Your task to perform on an android device: check google app version Image 0: 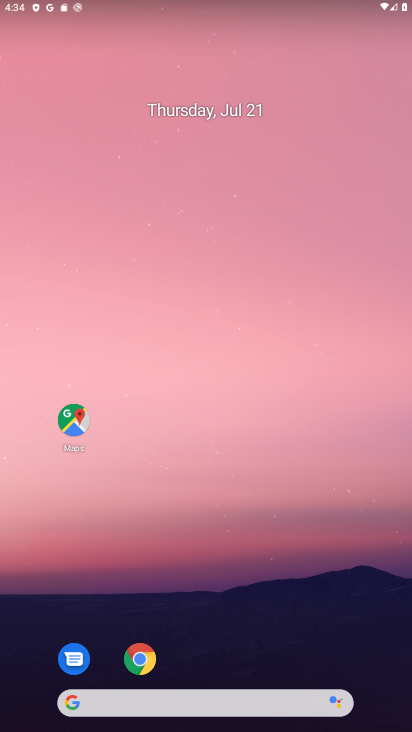
Step 0: drag from (212, 409) to (164, 90)
Your task to perform on an android device: check google app version Image 1: 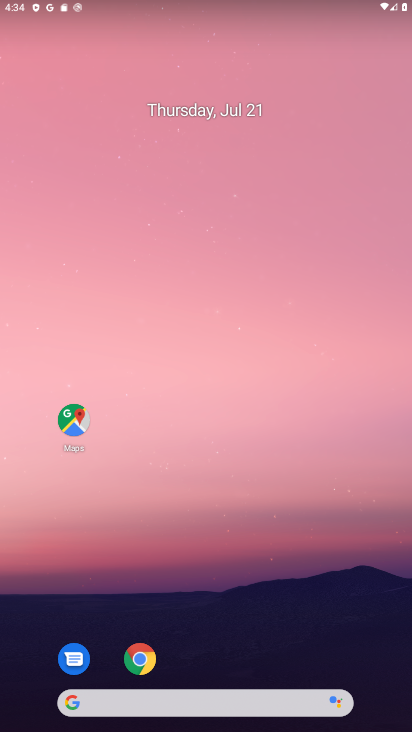
Step 1: click (189, 703)
Your task to perform on an android device: check google app version Image 2: 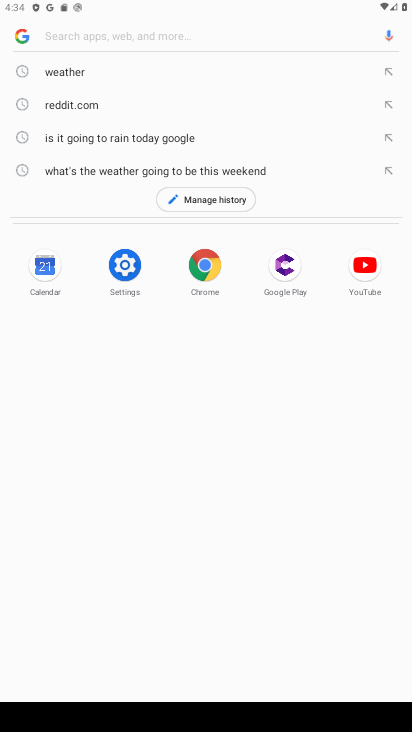
Step 2: click (18, 32)
Your task to perform on an android device: check google app version Image 3: 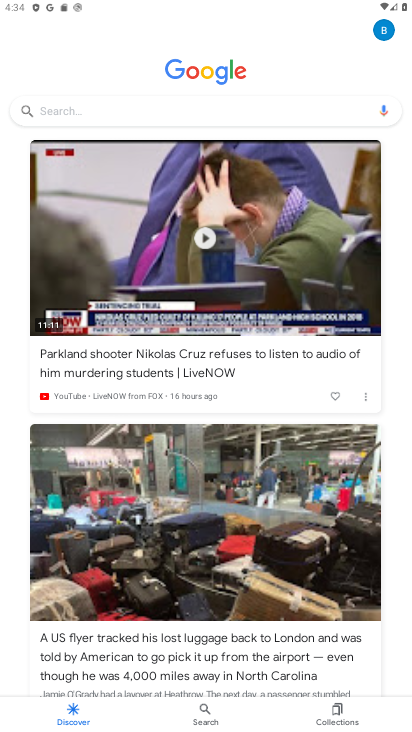
Step 3: click (385, 30)
Your task to perform on an android device: check google app version Image 4: 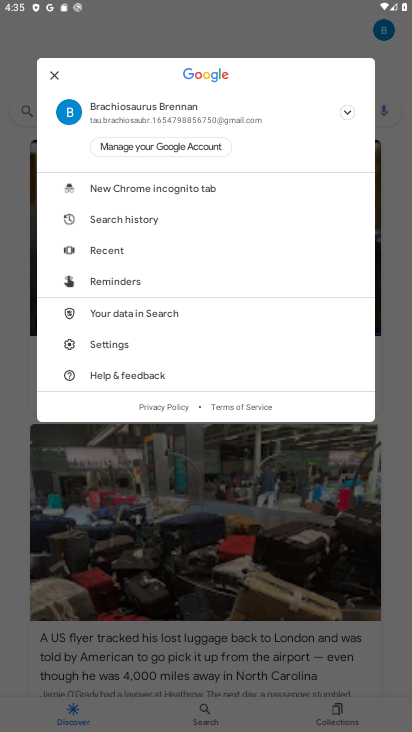
Step 4: click (110, 341)
Your task to perform on an android device: check google app version Image 5: 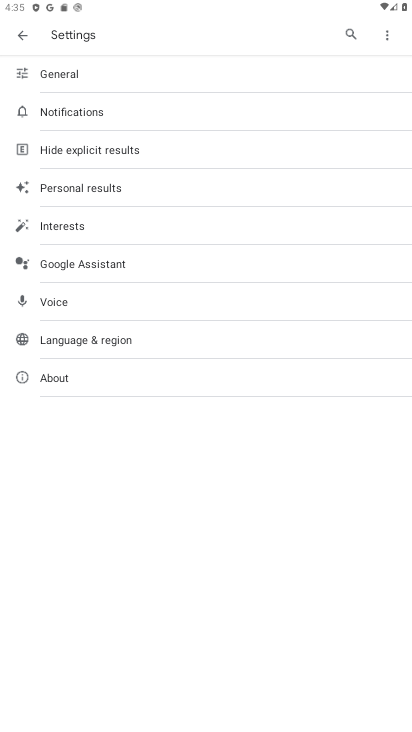
Step 5: click (62, 375)
Your task to perform on an android device: check google app version Image 6: 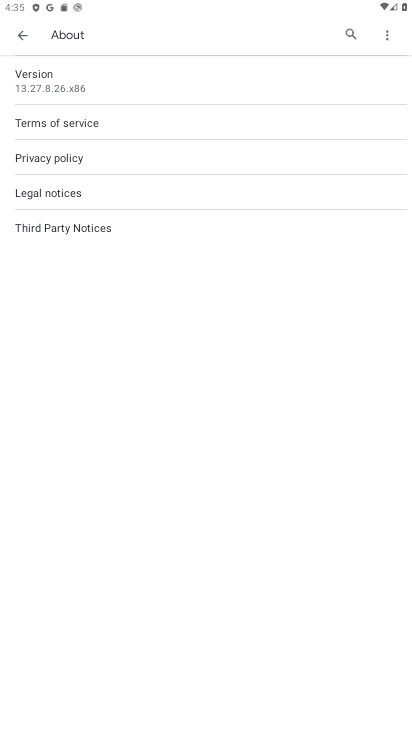
Step 6: task complete